Your task to perform on an android device: add a contact Image 0: 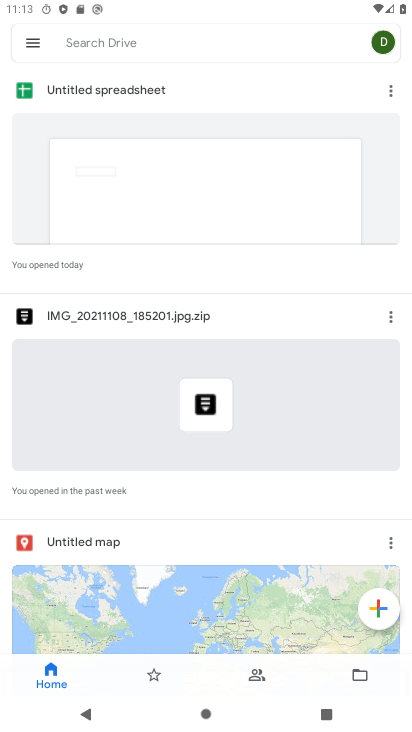
Step 0: press home button
Your task to perform on an android device: add a contact Image 1: 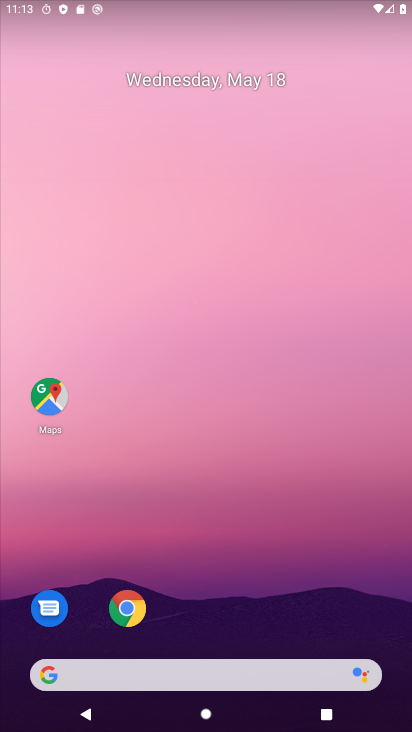
Step 1: drag from (268, 619) to (121, 35)
Your task to perform on an android device: add a contact Image 2: 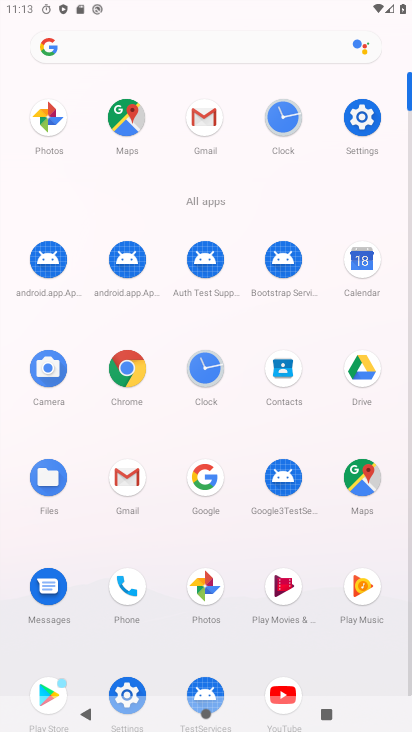
Step 2: click (277, 357)
Your task to perform on an android device: add a contact Image 3: 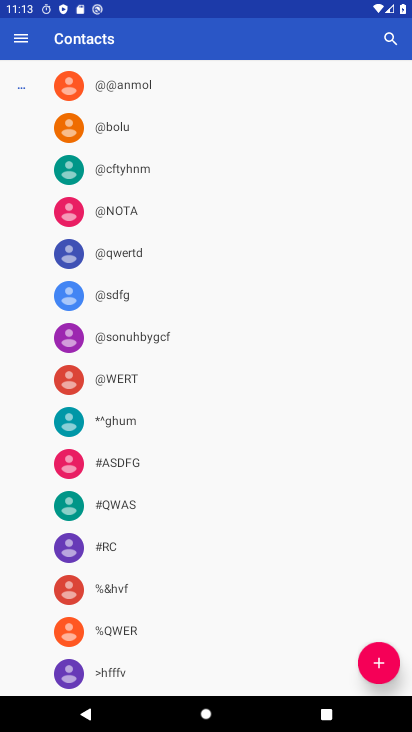
Step 3: click (387, 662)
Your task to perform on an android device: add a contact Image 4: 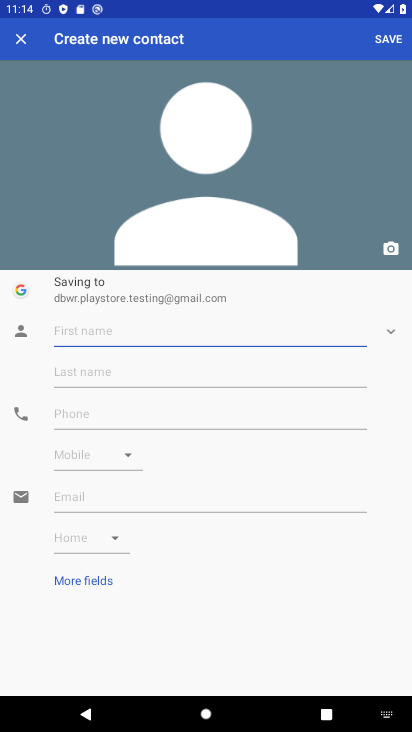
Step 4: click (211, 328)
Your task to perform on an android device: add a contact Image 5: 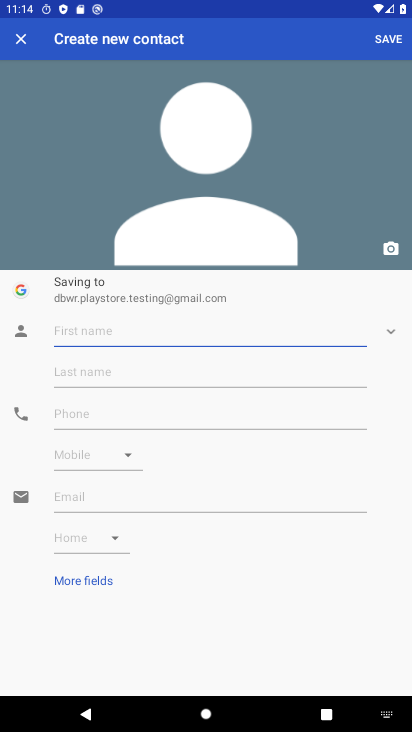
Step 5: type "gyghhjhj"
Your task to perform on an android device: add a contact Image 6: 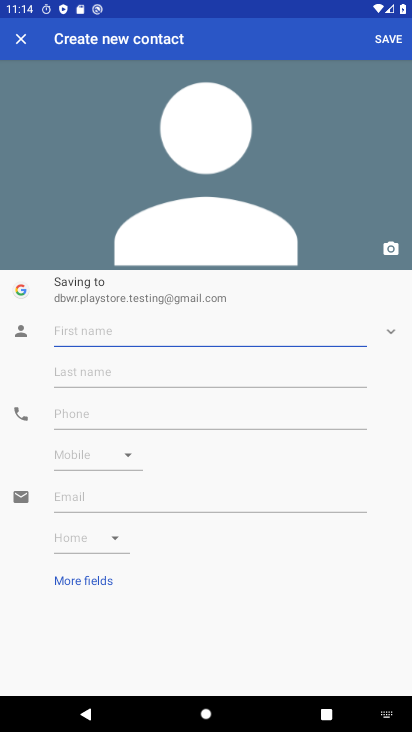
Step 6: click (315, 415)
Your task to perform on an android device: add a contact Image 7: 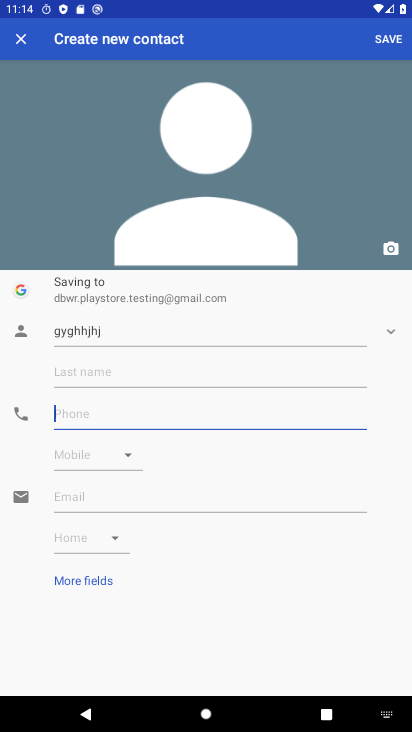
Step 7: type "796767"
Your task to perform on an android device: add a contact Image 8: 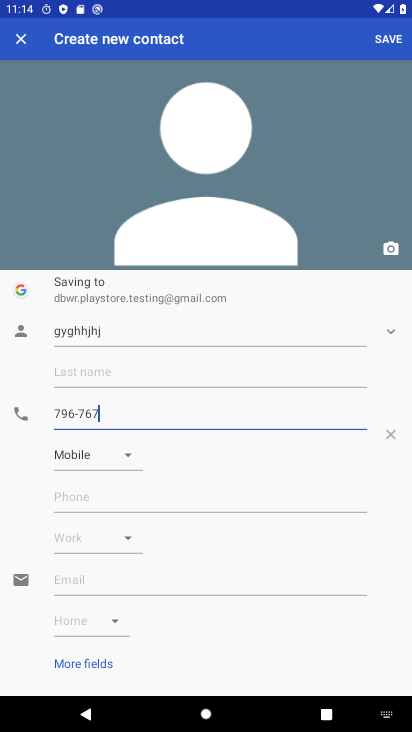
Step 8: click (391, 43)
Your task to perform on an android device: add a contact Image 9: 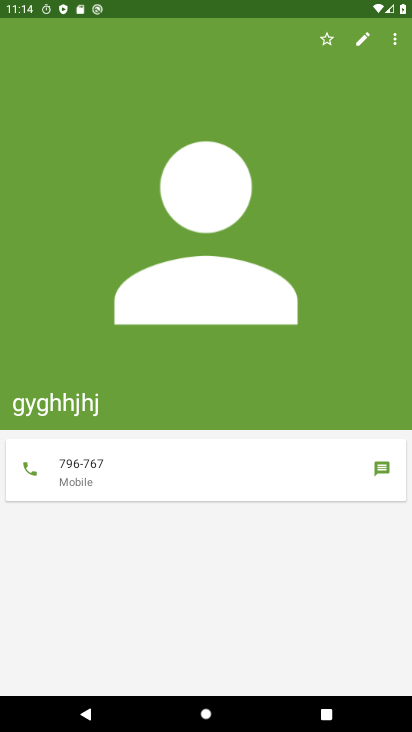
Step 9: task complete